Your task to perform on an android device: make emails show in primary in the gmail app Image 0: 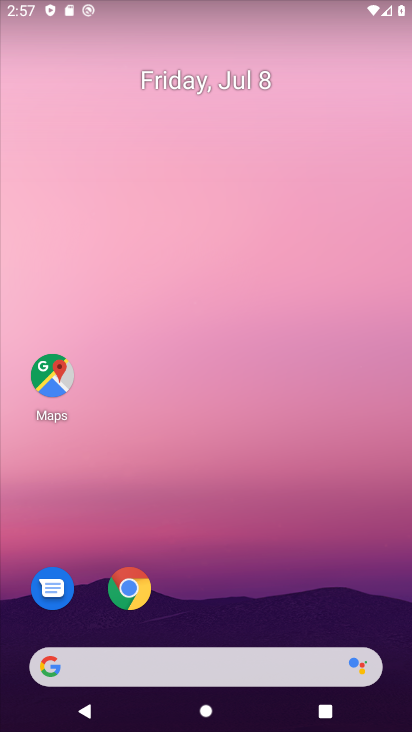
Step 0: press home button
Your task to perform on an android device: make emails show in primary in the gmail app Image 1: 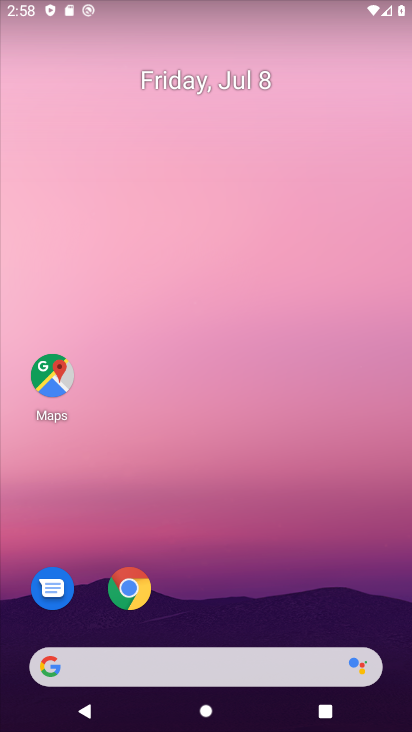
Step 1: drag from (201, 663) to (234, 134)
Your task to perform on an android device: make emails show in primary in the gmail app Image 2: 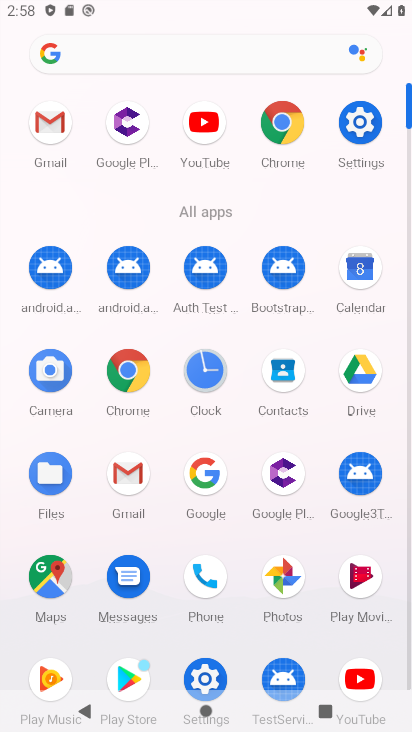
Step 2: click (48, 126)
Your task to perform on an android device: make emails show in primary in the gmail app Image 3: 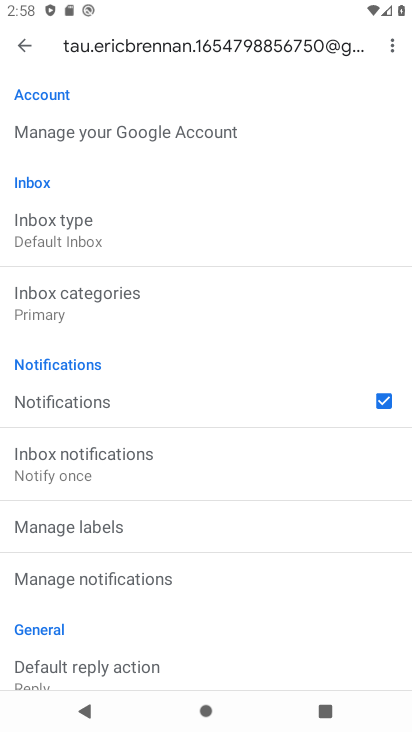
Step 3: task complete